Your task to perform on an android device: turn on showing notifications on the lock screen Image 0: 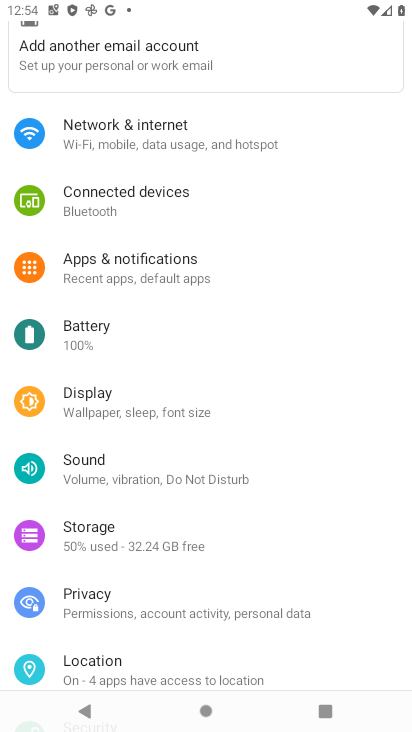
Step 0: press home button
Your task to perform on an android device: turn on showing notifications on the lock screen Image 1: 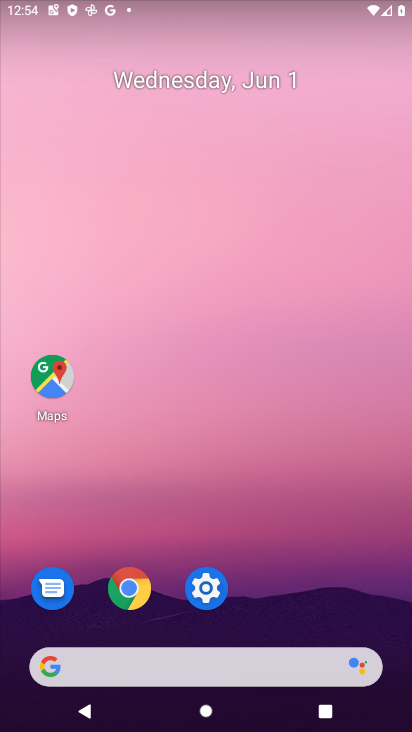
Step 1: drag from (226, 669) to (190, 261)
Your task to perform on an android device: turn on showing notifications on the lock screen Image 2: 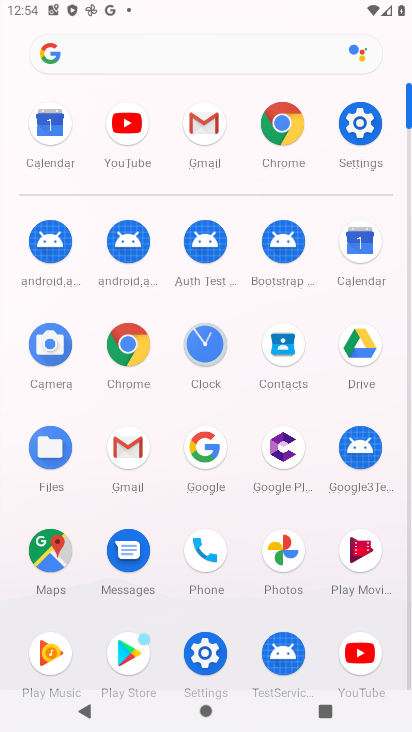
Step 2: click (361, 149)
Your task to perform on an android device: turn on showing notifications on the lock screen Image 3: 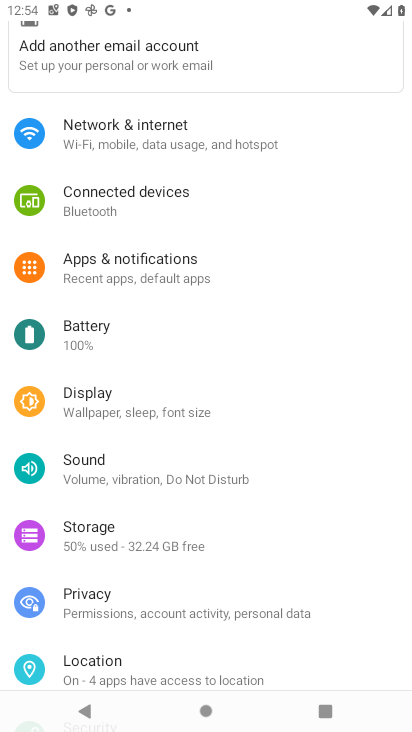
Step 3: drag from (208, 164) to (201, 240)
Your task to perform on an android device: turn on showing notifications on the lock screen Image 4: 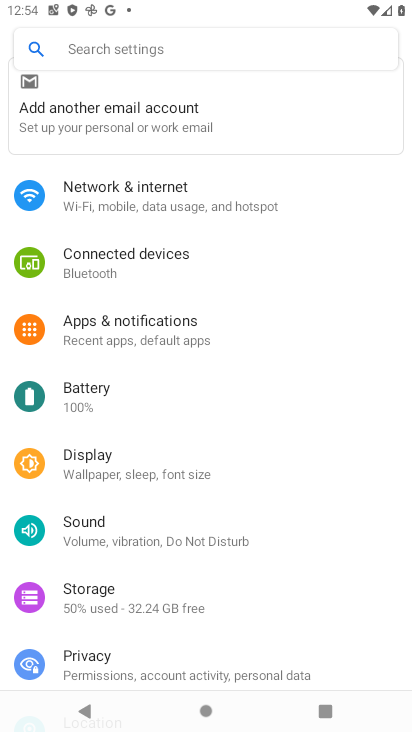
Step 4: click (157, 39)
Your task to perform on an android device: turn on showing notifications on the lock screen Image 5: 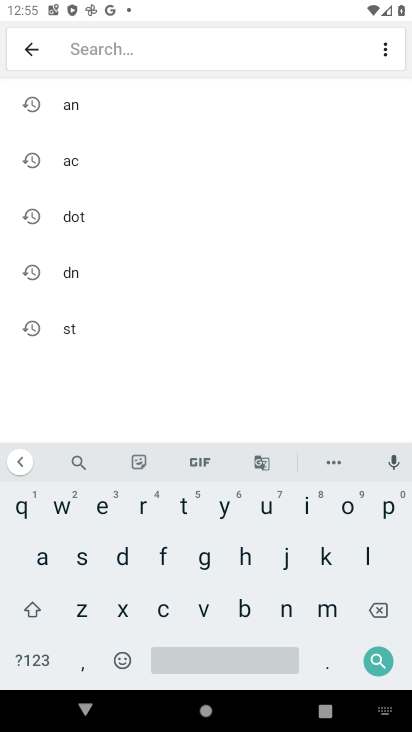
Step 5: click (283, 606)
Your task to perform on an android device: turn on showing notifications on the lock screen Image 6: 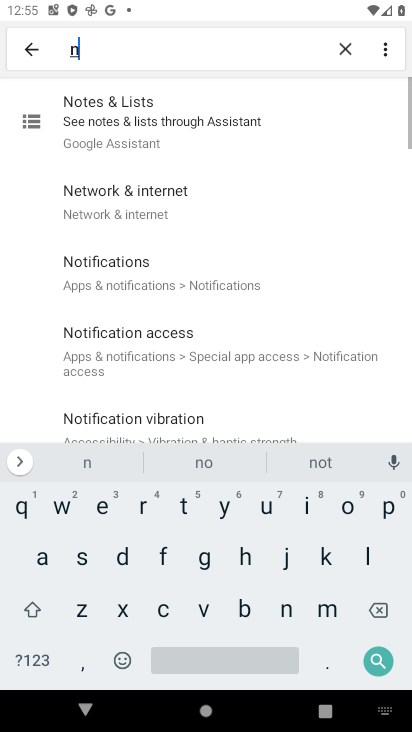
Step 6: click (342, 516)
Your task to perform on an android device: turn on showing notifications on the lock screen Image 7: 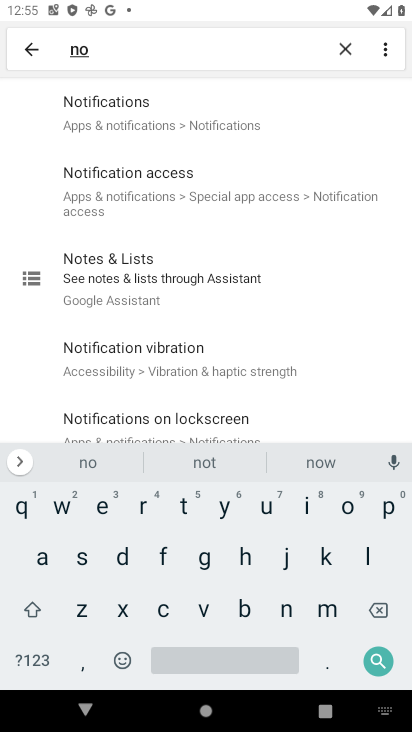
Step 7: click (193, 115)
Your task to perform on an android device: turn on showing notifications on the lock screen Image 8: 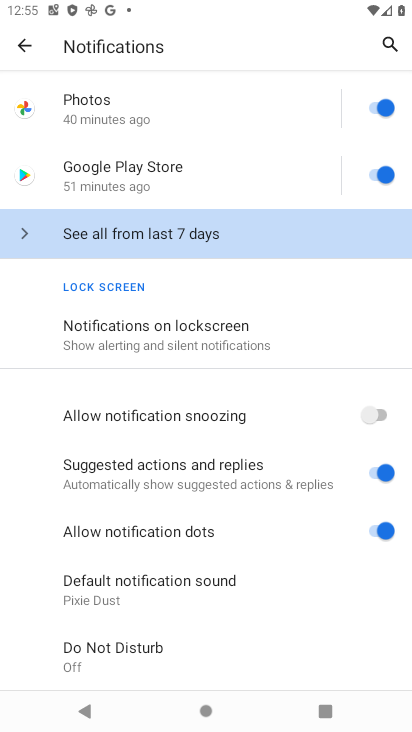
Step 8: click (138, 328)
Your task to perform on an android device: turn on showing notifications on the lock screen Image 9: 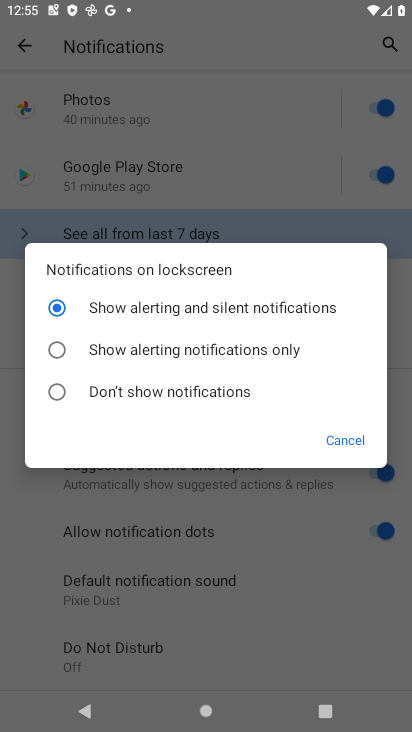
Step 9: task complete